Your task to perform on an android device: change your default location settings in chrome Image 0: 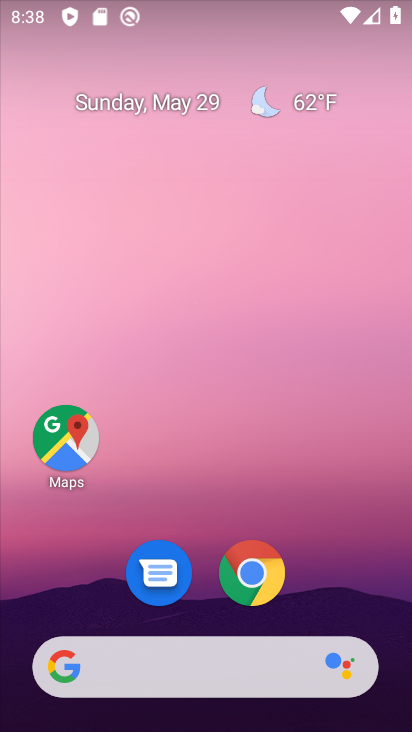
Step 0: click (270, 582)
Your task to perform on an android device: change your default location settings in chrome Image 1: 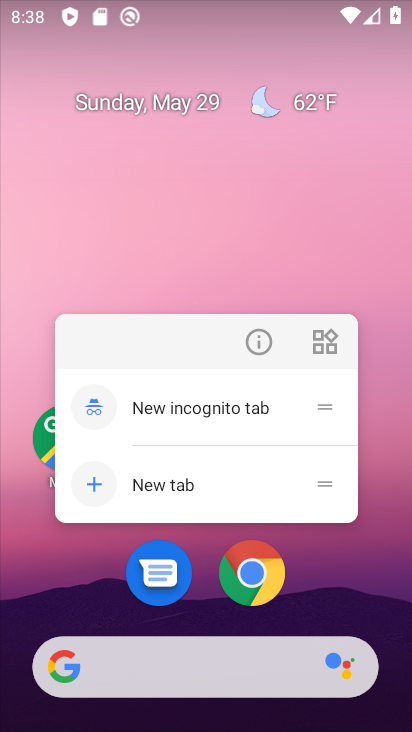
Step 1: click (269, 580)
Your task to perform on an android device: change your default location settings in chrome Image 2: 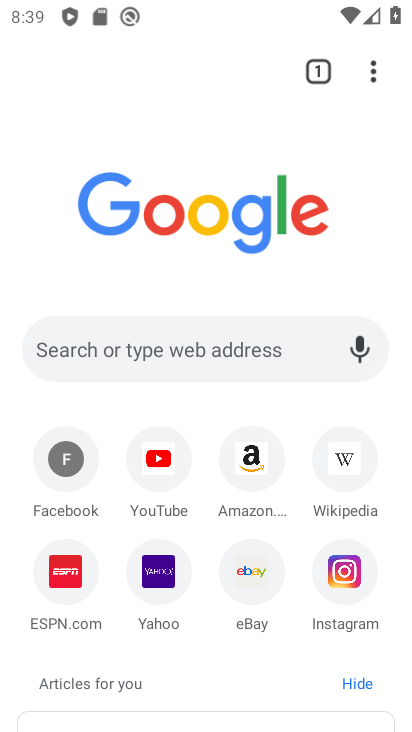
Step 2: drag from (370, 66) to (154, 588)
Your task to perform on an android device: change your default location settings in chrome Image 3: 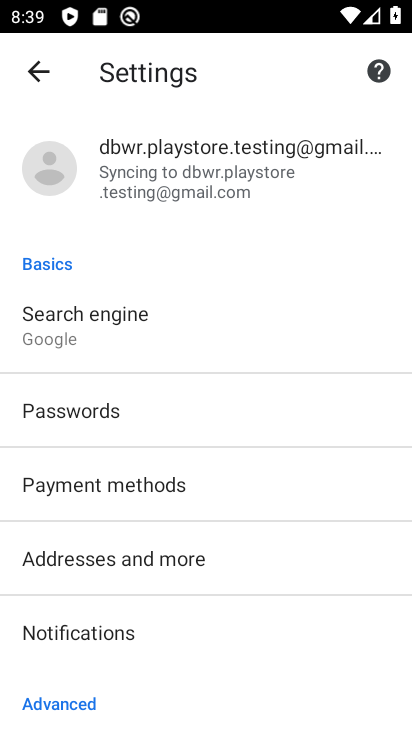
Step 3: drag from (316, 653) to (278, 124)
Your task to perform on an android device: change your default location settings in chrome Image 4: 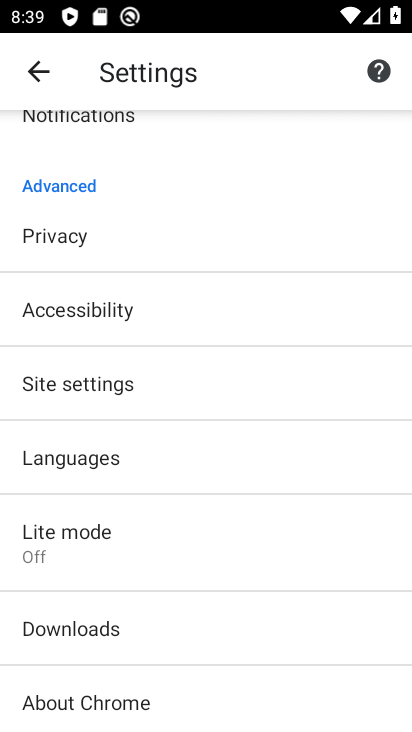
Step 4: drag from (283, 671) to (257, 717)
Your task to perform on an android device: change your default location settings in chrome Image 5: 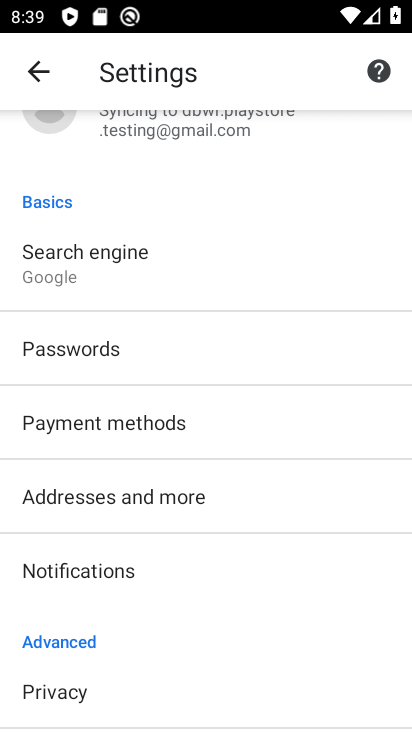
Step 5: drag from (214, 678) to (185, 371)
Your task to perform on an android device: change your default location settings in chrome Image 6: 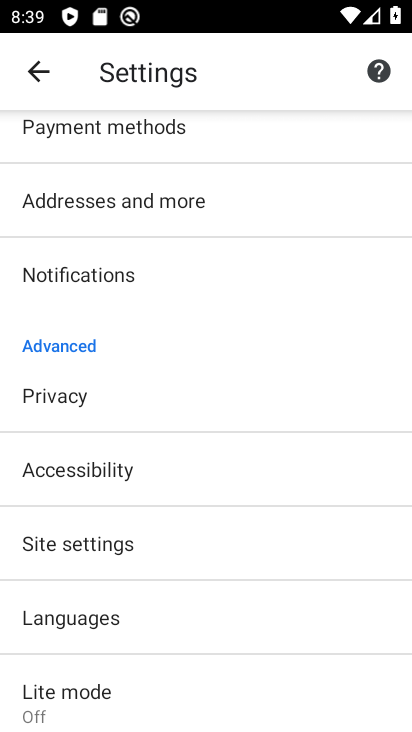
Step 6: click (106, 543)
Your task to perform on an android device: change your default location settings in chrome Image 7: 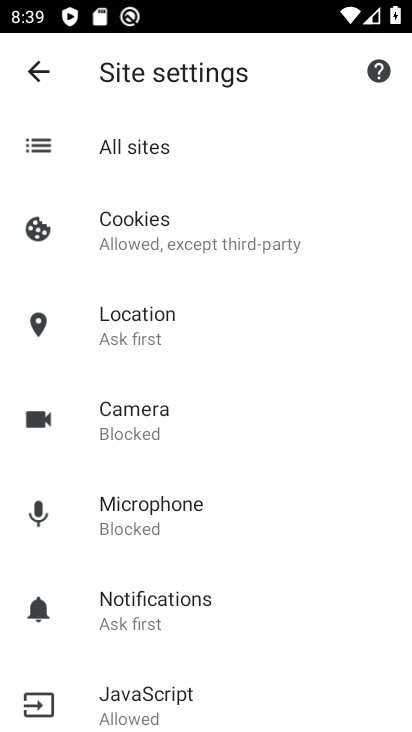
Step 7: click (157, 319)
Your task to perform on an android device: change your default location settings in chrome Image 8: 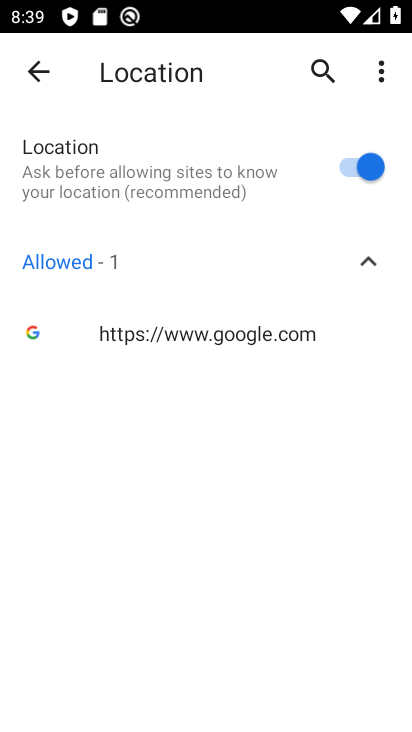
Step 8: click (376, 130)
Your task to perform on an android device: change your default location settings in chrome Image 9: 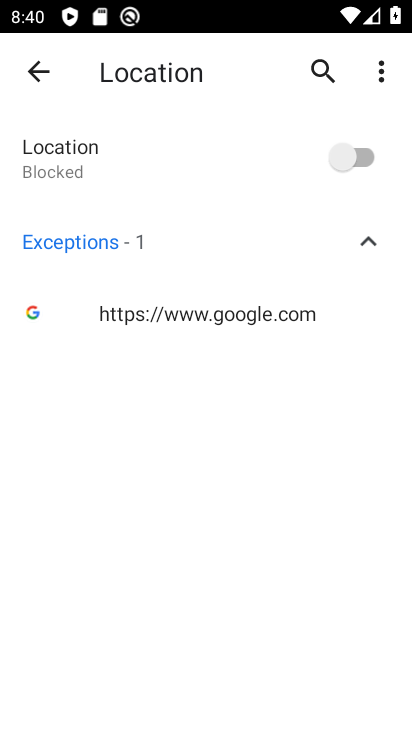
Step 9: task complete